Your task to perform on an android device: change keyboard looks Image 0: 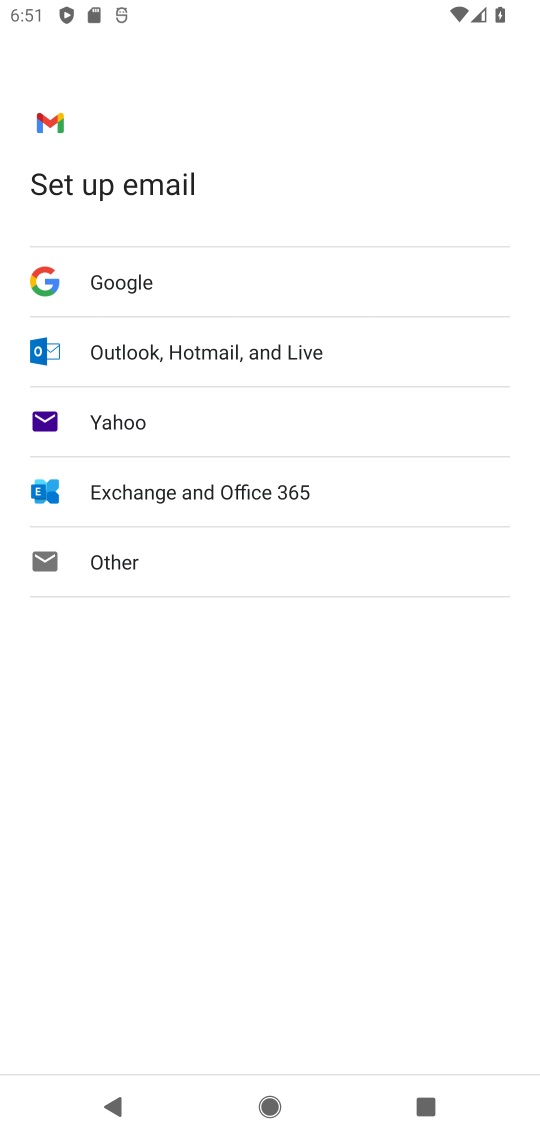
Step 0: press home button
Your task to perform on an android device: change keyboard looks Image 1: 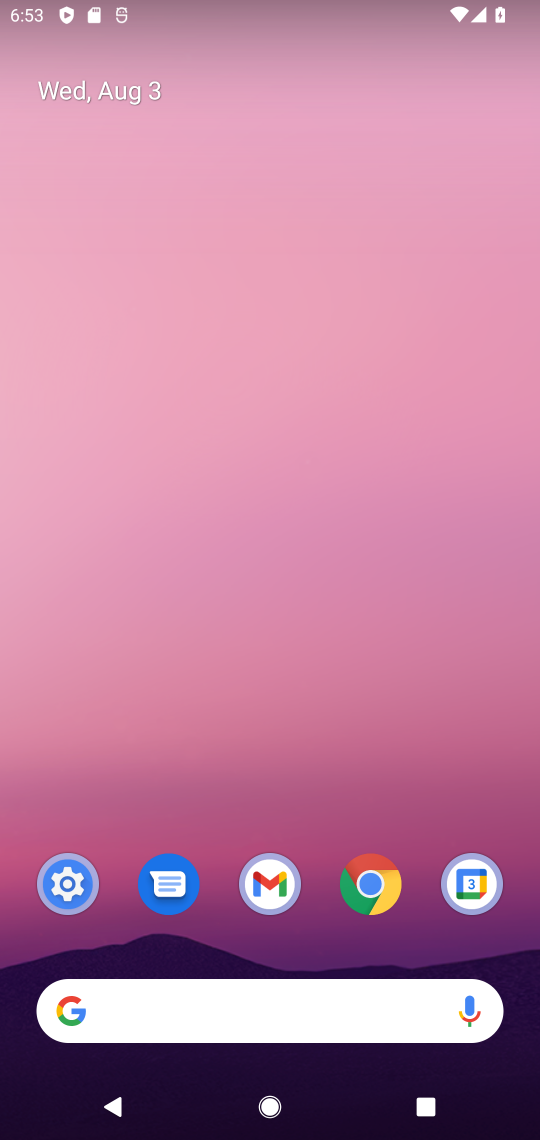
Step 1: click (407, 13)
Your task to perform on an android device: change keyboard looks Image 2: 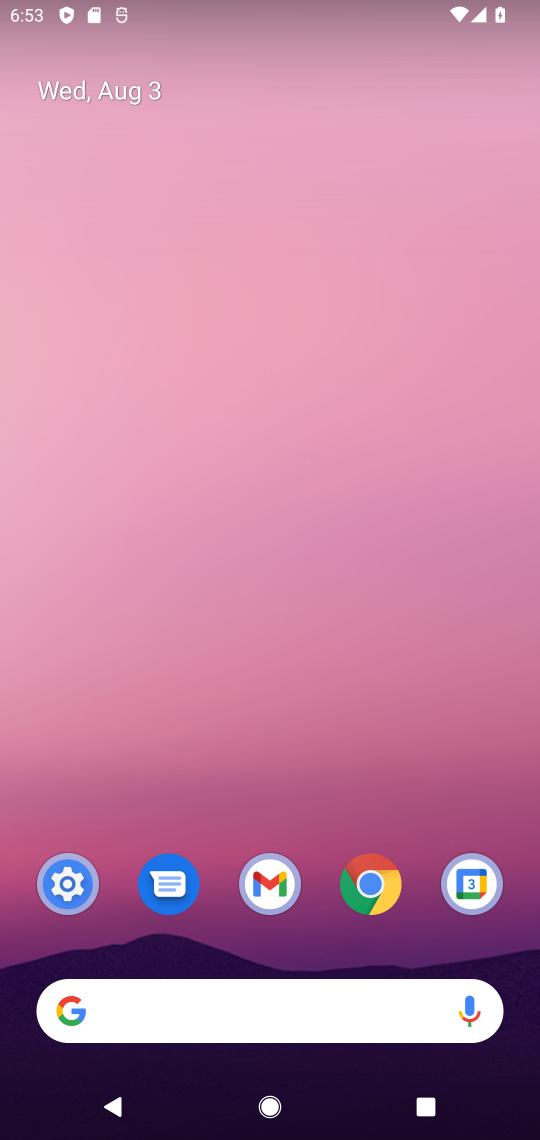
Step 2: drag from (306, 799) to (370, 257)
Your task to perform on an android device: change keyboard looks Image 3: 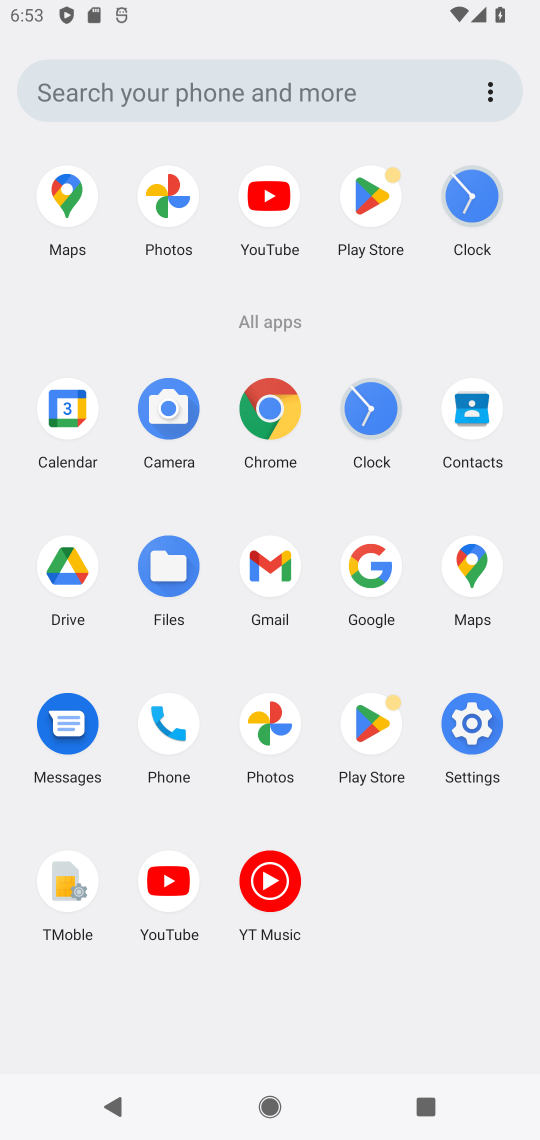
Step 3: click (455, 733)
Your task to perform on an android device: change keyboard looks Image 4: 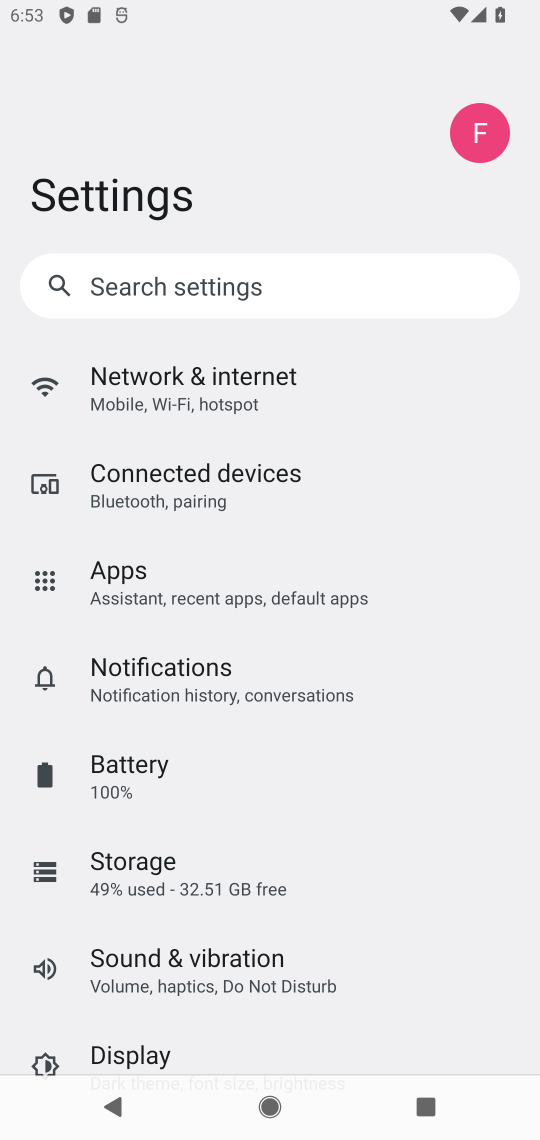
Step 4: task complete